Your task to perform on an android device: change the clock display to show seconds Image 0: 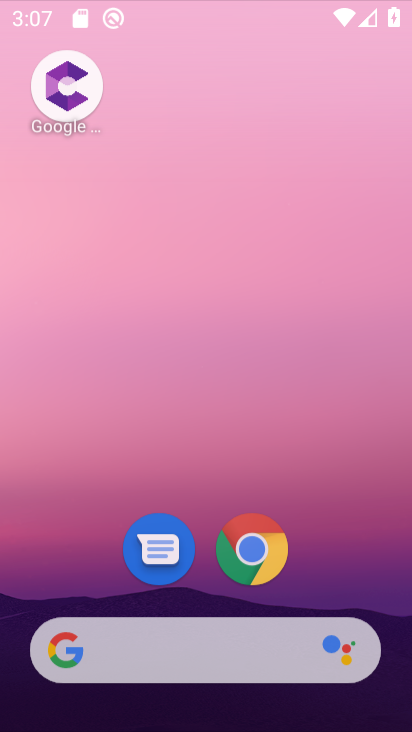
Step 0: click (315, 378)
Your task to perform on an android device: change the clock display to show seconds Image 1: 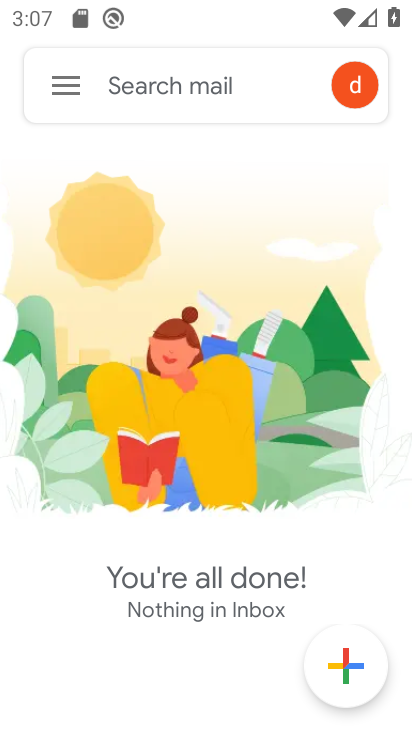
Step 1: press home button
Your task to perform on an android device: change the clock display to show seconds Image 2: 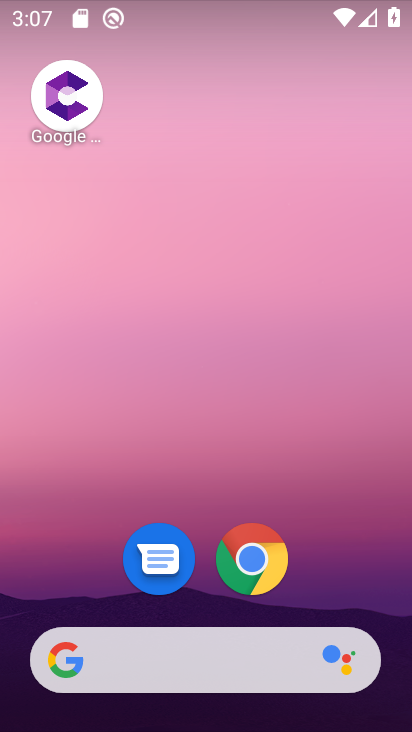
Step 2: drag from (186, 568) to (119, 264)
Your task to perform on an android device: change the clock display to show seconds Image 3: 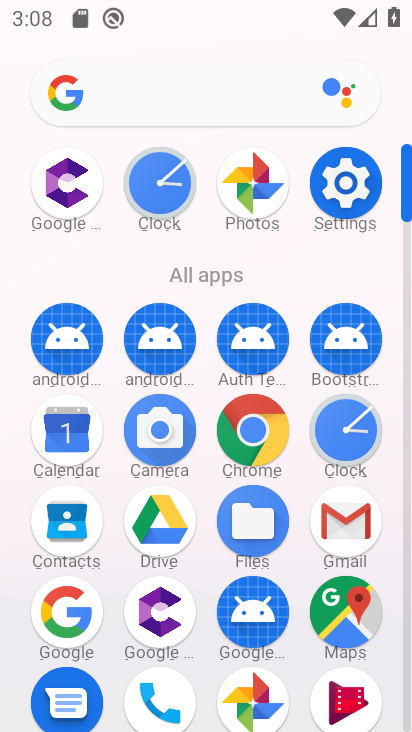
Step 3: click (349, 440)
Your task to perform on an android device: change the clock display to show seconds Image 4: 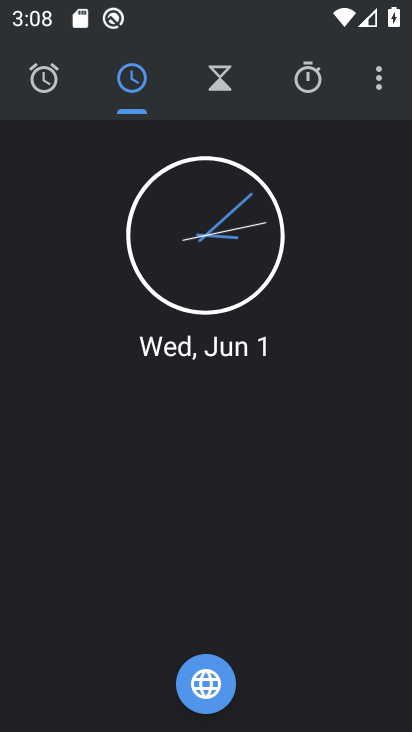
Step 4: click (383, 76)
Your task to perform on an android device: change the clock display to show seconds Image 5: 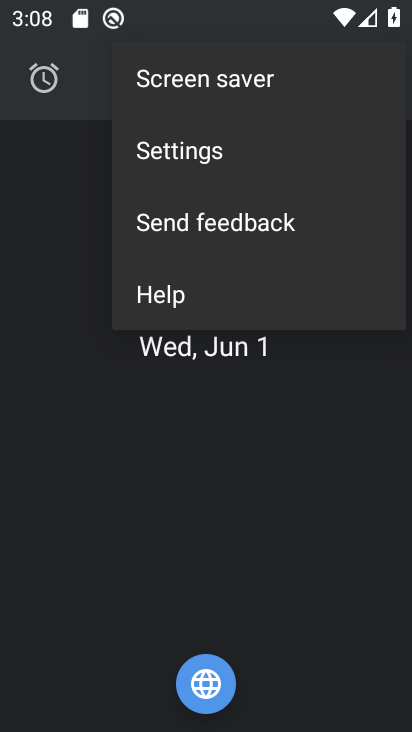
Step 5: click (187, 149)
Your task to perform on an android device: change the clock display to show seconds Image 6: 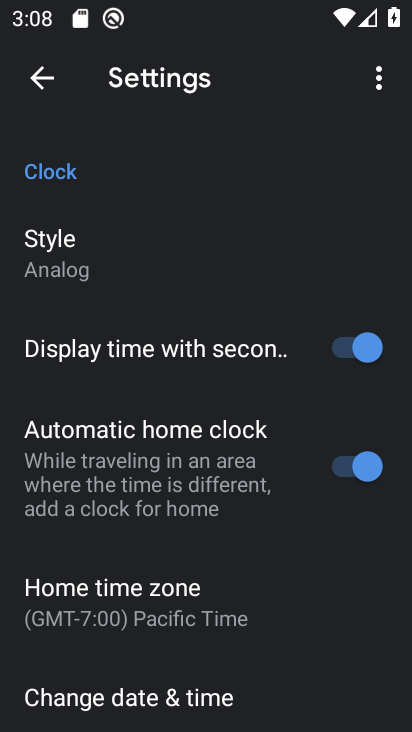
Step 6: click (118, 275)
Your task to perform on an android device: change the clock display to show seconds Image 7: 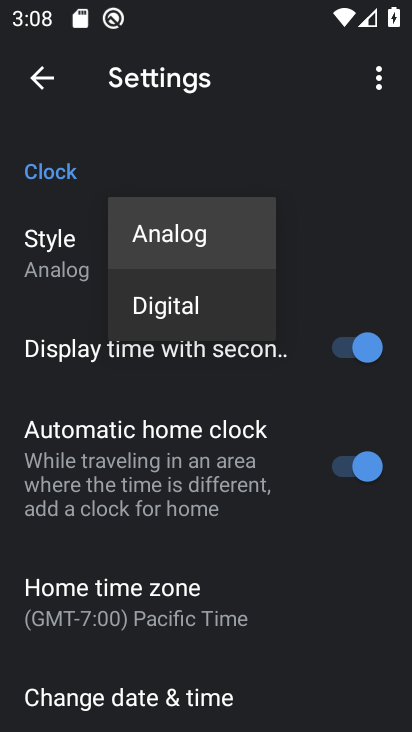
Step 7: task complete